Your task to perform on an android device: Go to privacy settings Image 0: 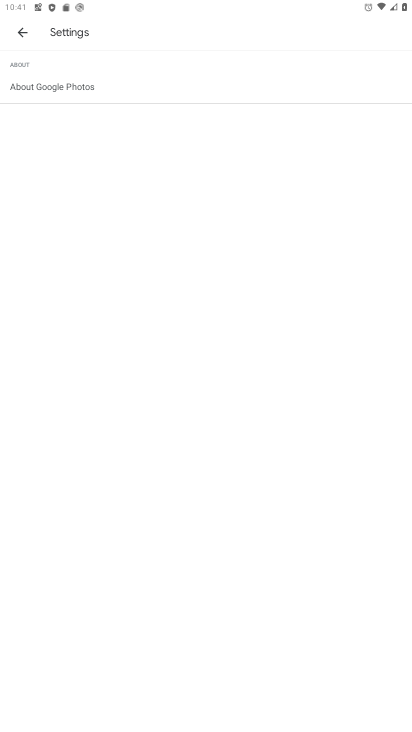
Step 0: drag from (202, 678) to (162, 312)
Your task to perform on an android device: Go to privacy settings Image 1: 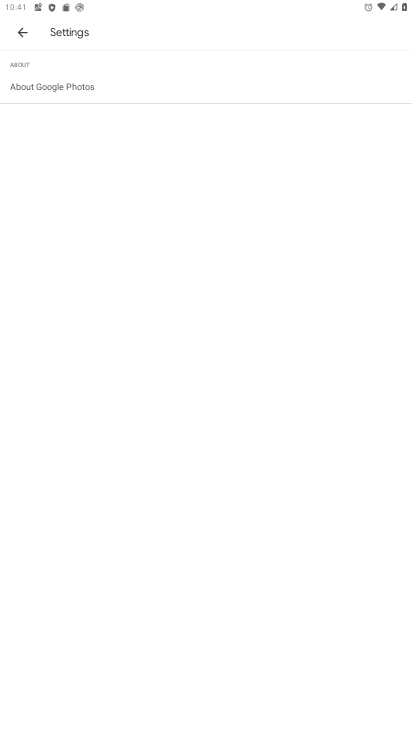
Step 1: press home button
Your task to perform on an android device: Go to privacy settings Image 2: 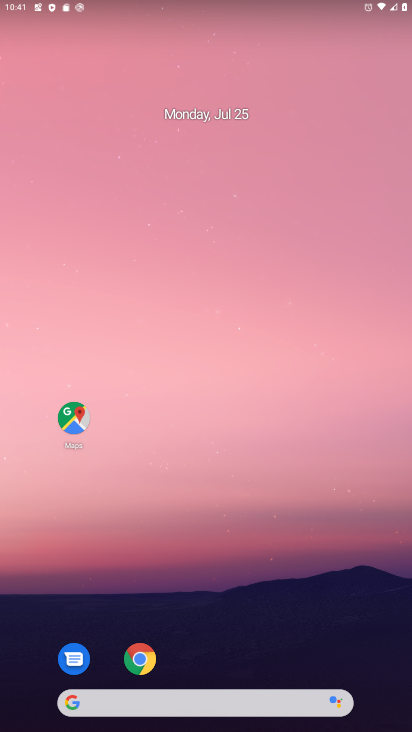
Step 2: drag from (203, 675) to (194, 77)
Your task to perform on an android device: Go to privacy settings Image 3: 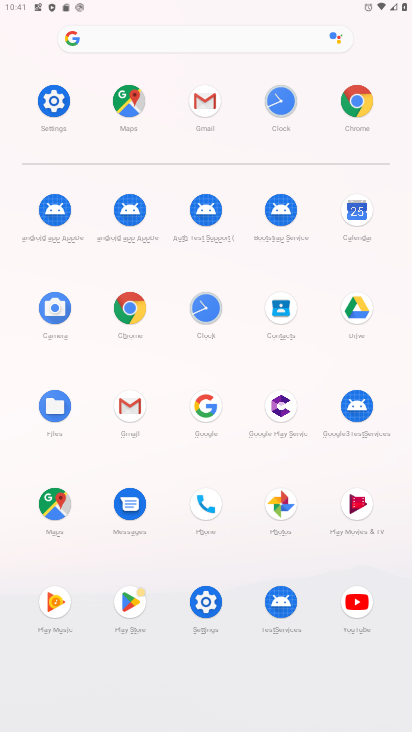
Step 3: click (41, 105)
Your task to perform on an android device: Go to privacy settings Image 4: 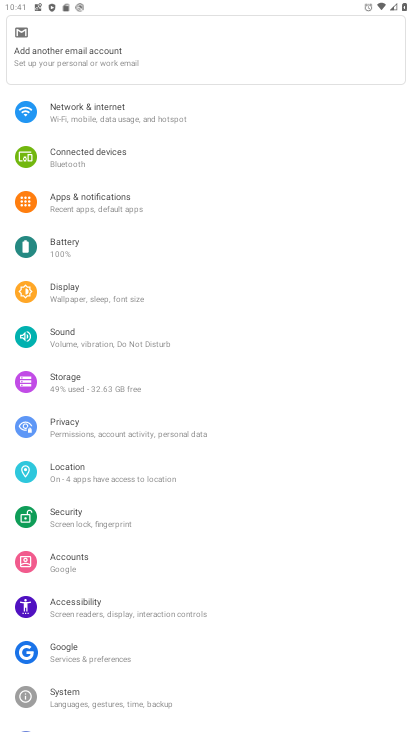
Step 4: drag from (96, 635) to (81, 197)
Your task to perform on an android device: Go to privacy settings Image 5: 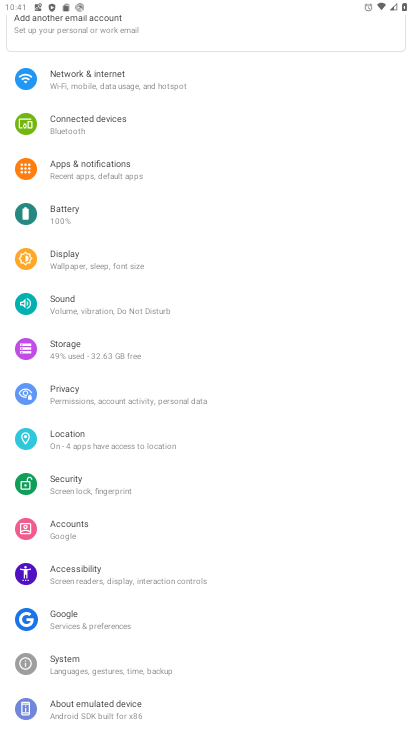
Step 5: click (59, 395)
Your task to perform on an android device: Go to privacy settings Image 6: 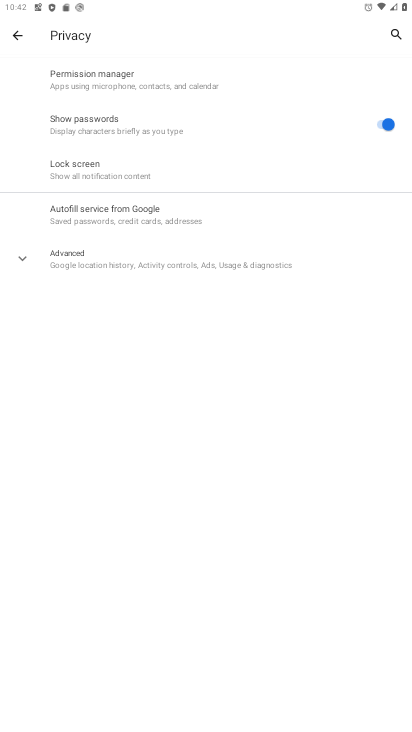
Step 6: task complete